Your task to perform on an android device: turn on javascript in the chrome app Image 0: 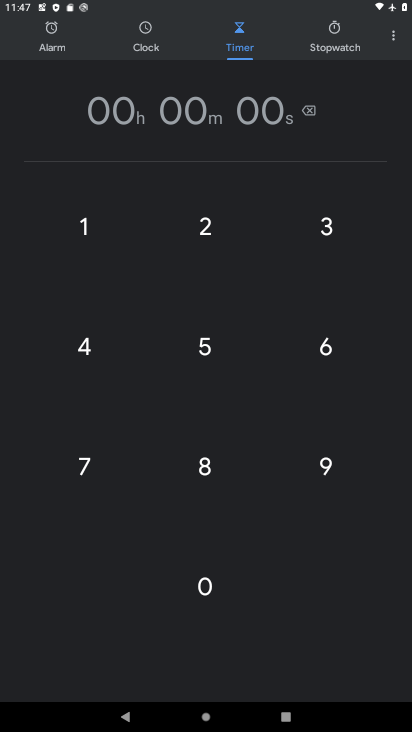
Step 0: press home button
Your task to perform on an android device: turn on javascript in the chrome app Image 1: 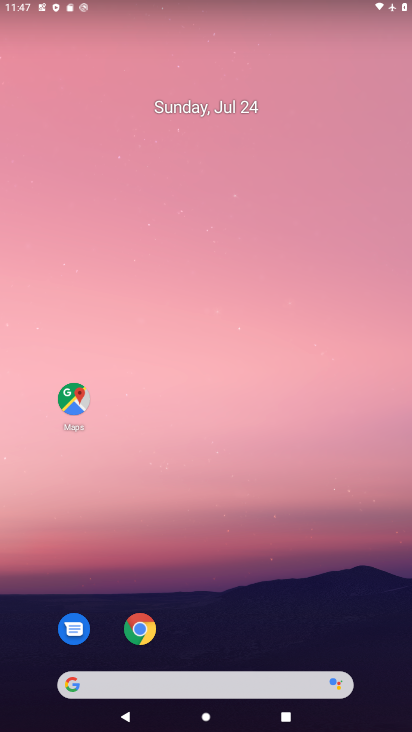
Step 1: click (156, 621)
Your task to perform on an android device: turn on javascript in the chrome app Image 2: 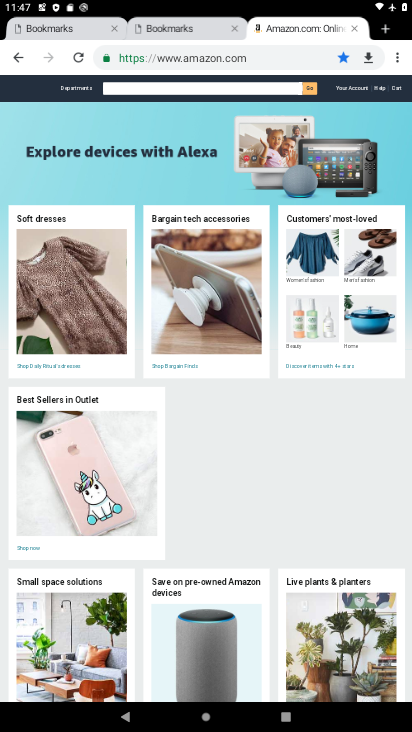
Step 2: click (399, 68)
Your task to perform on an android device: turn on javascript in the chrome app Image 3: 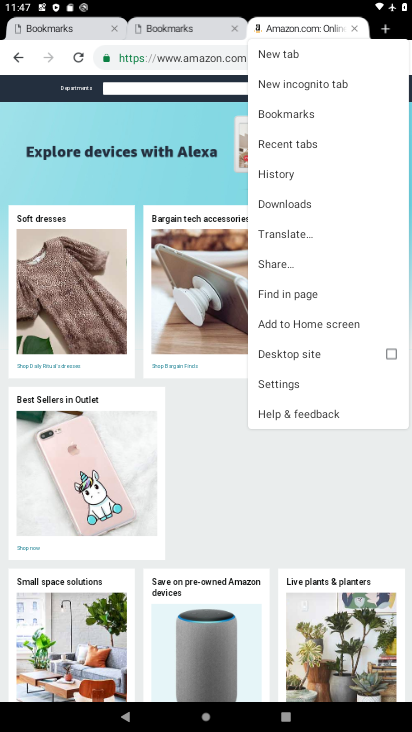
Step 3: click (308, 379)
Your task to perform on an android device: turn on javascript in the chrome app Image 4: 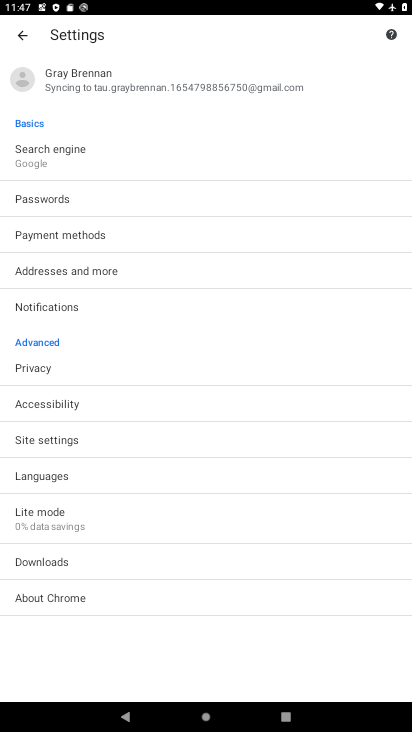
Step 4: click (96, 438)
Your task to perform on an android device: turn on javascript in the chrome app Image 5: 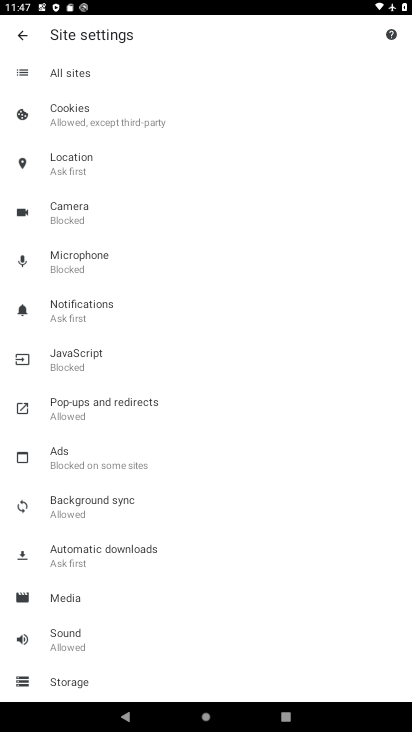
Step 5: click (136, 354)
Your task to perform on an android device: turn on javascript in the chrome app Image 6: 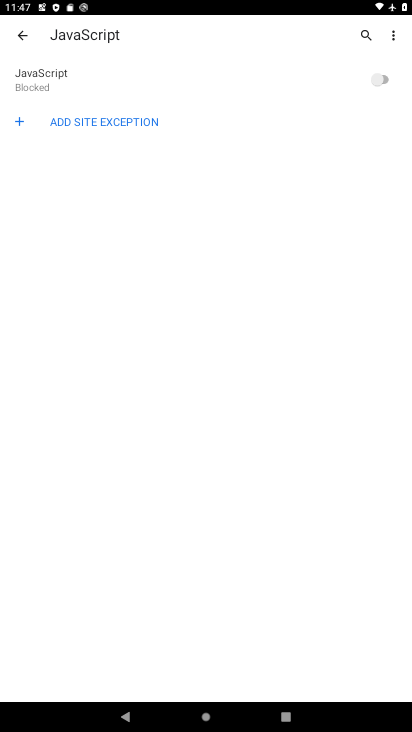
Step 6: click (380, 74)
Your task to perform on an android device: turn on javascript in the chrome app Image 7: 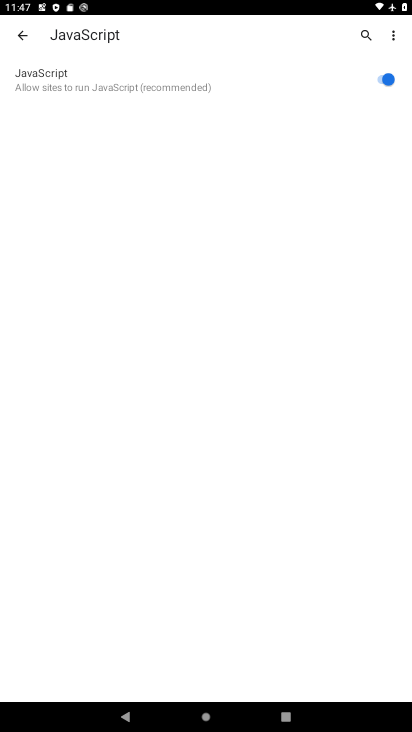
Step 7: task complete